Your task to perform on an android device: Open privacy settings Image 0: 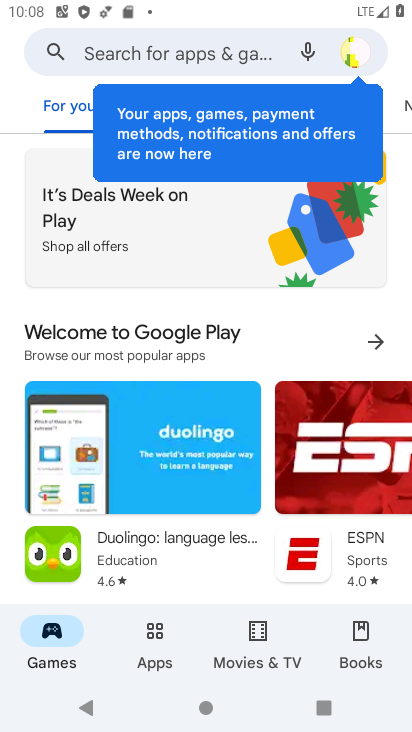
Step 0: press home button
Your task to perform on an android device: Open privacy settings Image 1: 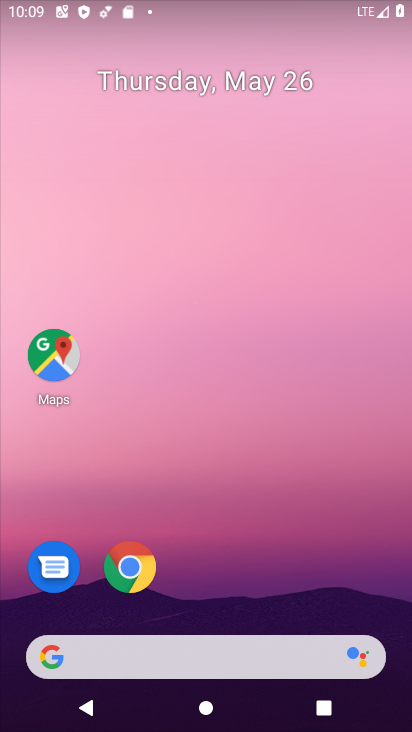
Step 1: drag from (257, 696) to (251, 254)
Your task to perform on an android device: Open privacy settings Image 2: 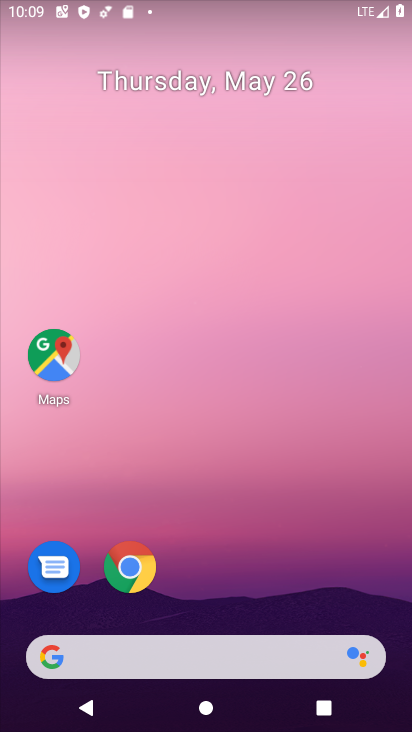
Step 2: drag from (275, 615) to (246, 183)
Your task to perform on an android device: Open privacy settings Image 3: 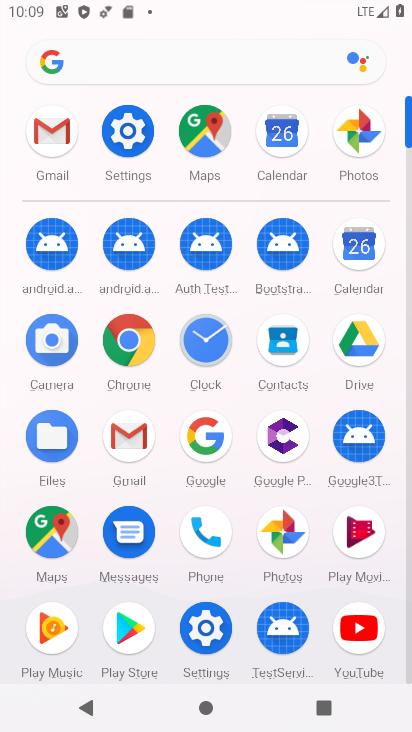
Step 3: click (128, 125)
Your task to perform on an android device: Open privacy settings Image 4: 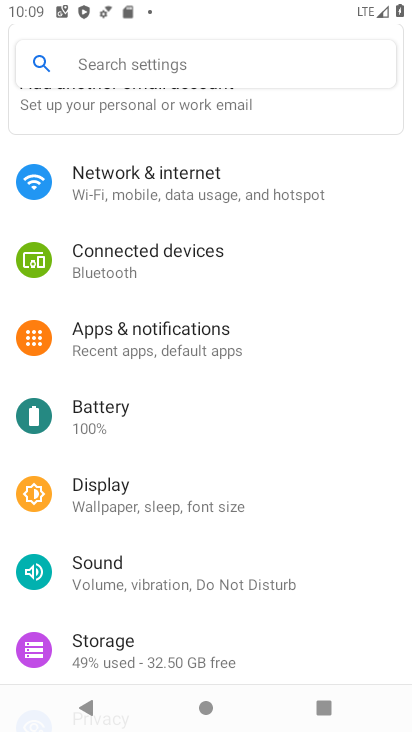
Step 4: drag from (166, 620) to (166, 124)
Your task to perform on an android device: Open privacy settings Image 5: 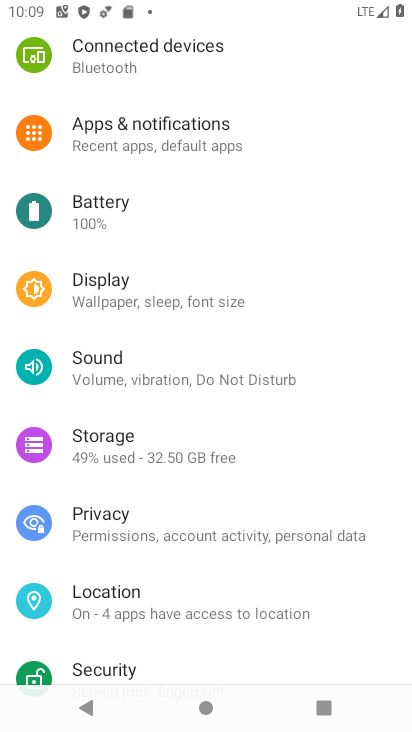
Step 5: click (184, 528)
Your task to perform on an android device: Open privacy settings Image 6: 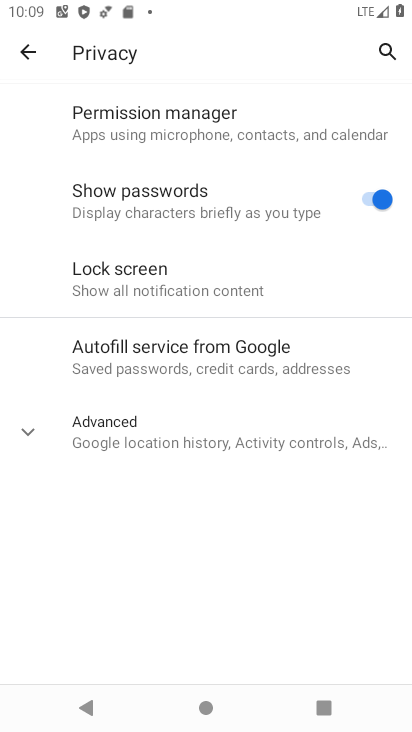
Step 6: task complete